Your task to perform on an android device: Open Amazon Image 0: 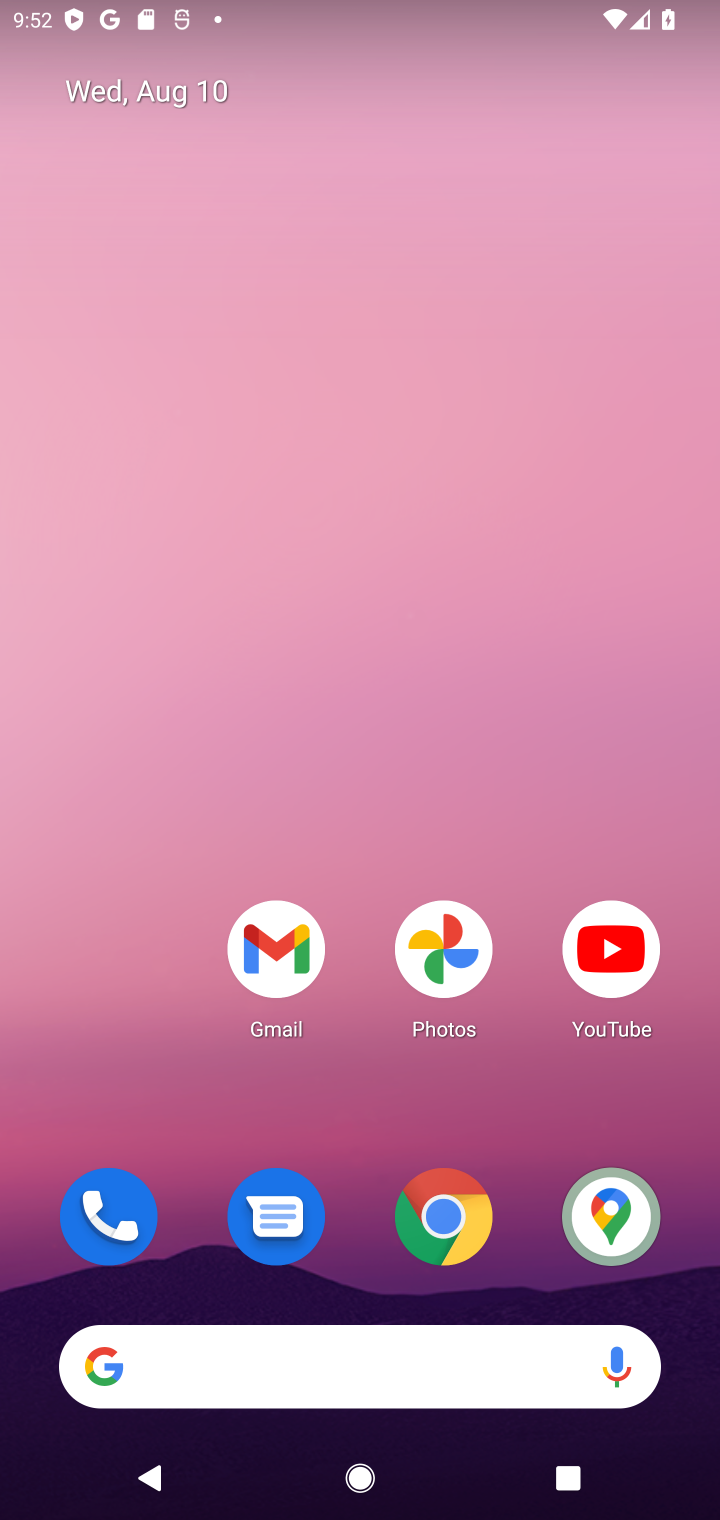
Step 0: click (442, 1219)
Your task to perform on an android device: Open Amazon Image 1: 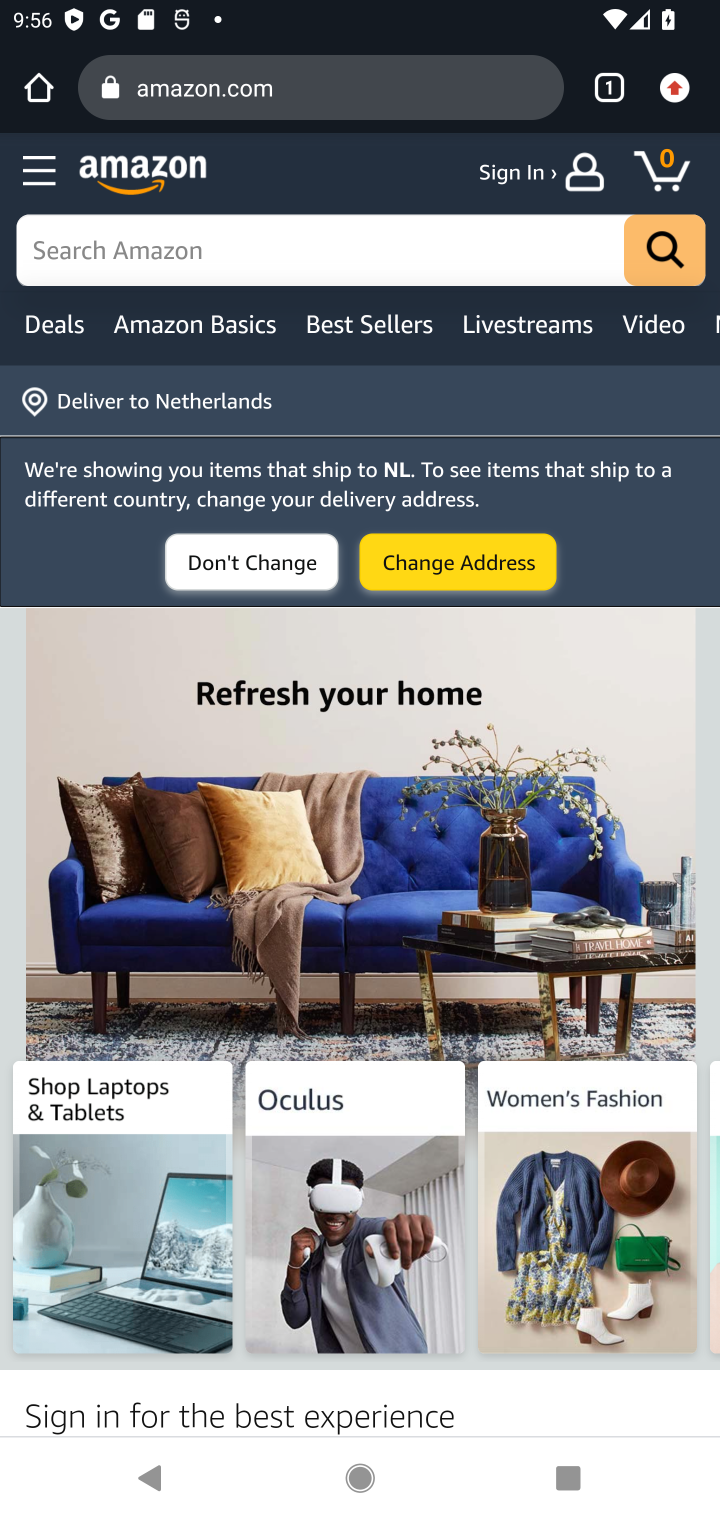
Step 1: task complete